Your task to perform on an android device: Search for Mexican restaurants on Maps Image 0: 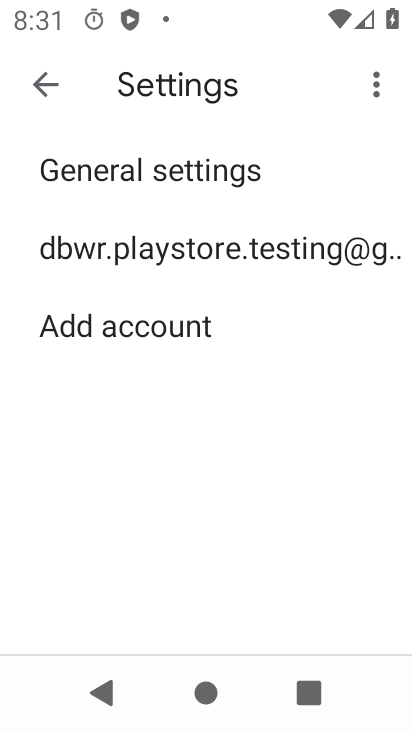
Step 0: press home button
Your task to perform on an android device: Search for Mexican restaurants on Maps Image 1: 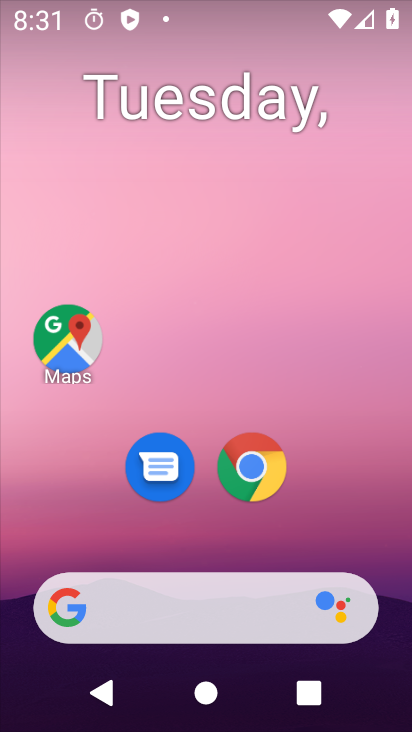
Step 1: click (74, 335)
Your task to perform on an android device: Search for Mexican restaurants on Maps Image 2: 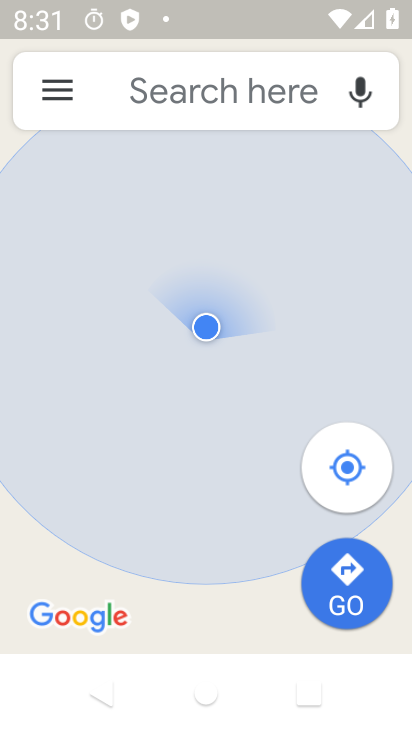
Step 2: click (218, 93)
Your task to perform on an android device: Search for Mexican restaurants on Maps Image 3: 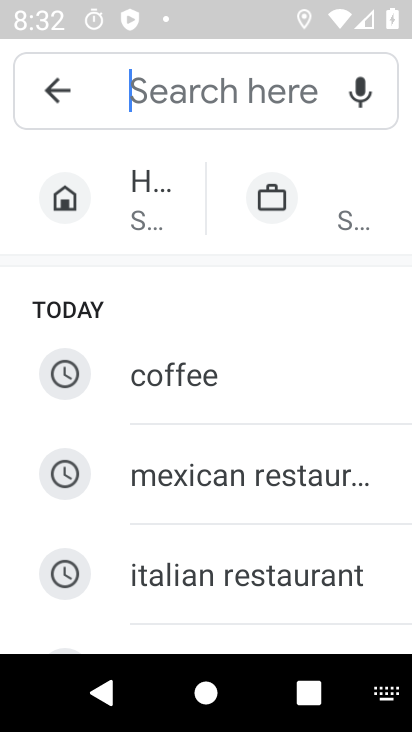
Step 3: click (281, 478)
Your task to perform on an android device: Search for Mexican restaurants on Maps Image 4: 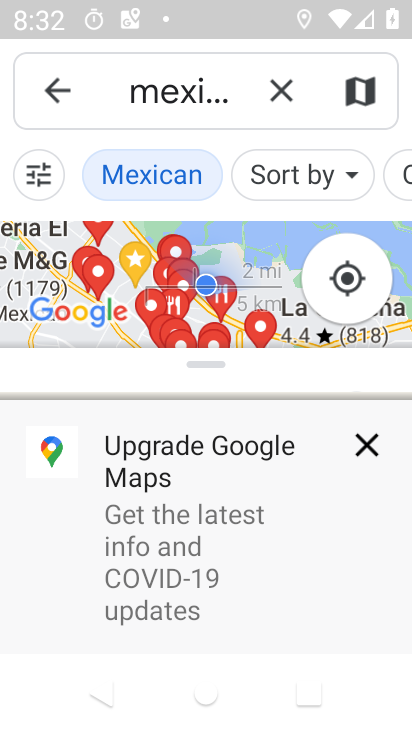
Step 4: click (372, 445)
Your task to perform on an android device: Search for Mexican restaurants on Maps Image 5: 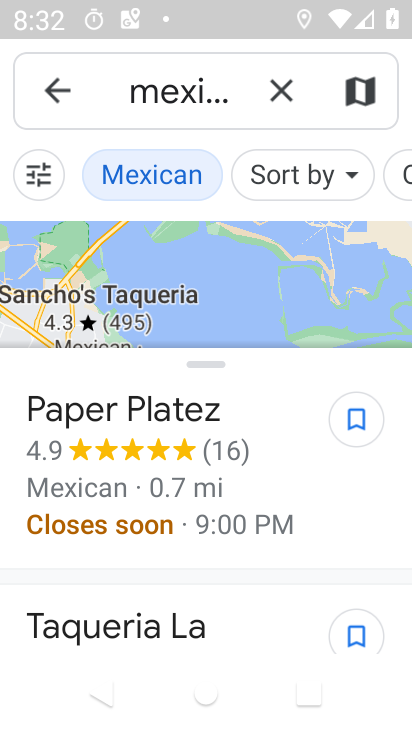
Step 5: task complete